Your task to perform on an android device: turn on sleep mode Image 0: 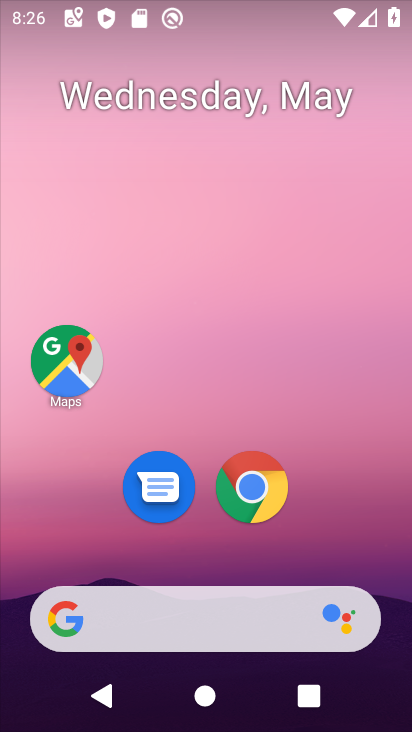
Step 0: press home button
Your task to perform on an android device: turn on sleep mode Image 1: 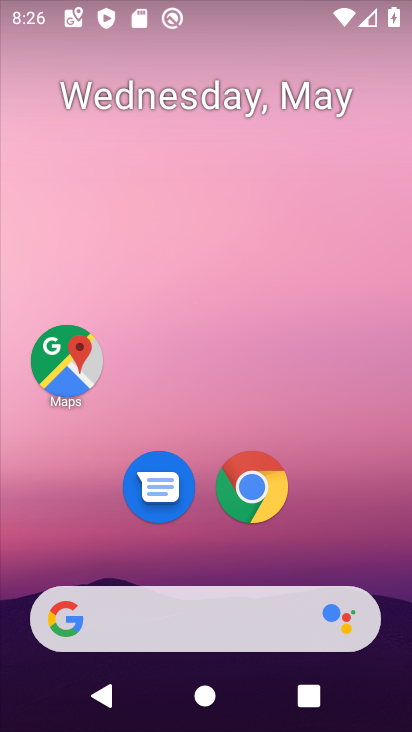
Step 1: drag from (213, 546) to (265, 188)
Your task to perform on an android device: turn on sleep mode Image 2: 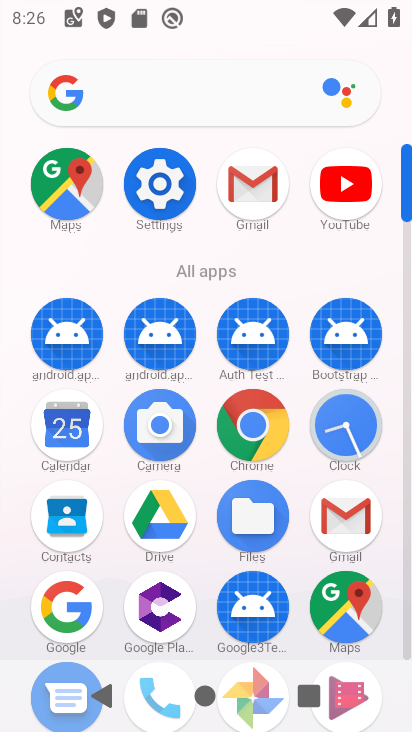
Step 2: click (159, 177)
Your task to perform on an android device: turn on sleep mode Image 3: 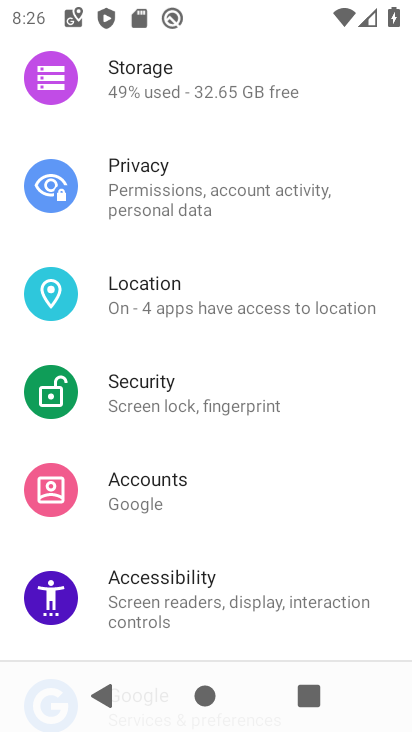
Step 3: drag from (189, 124) to (156, 731)
Your task to perform on an android device: turn on sleep mode Image 4: 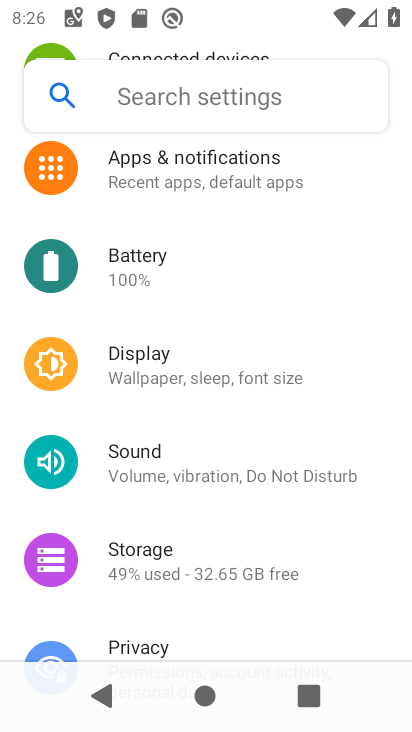
Step 4: click (174, 362)
Your task to perform on an android device: turn on sleep mode Image 5: 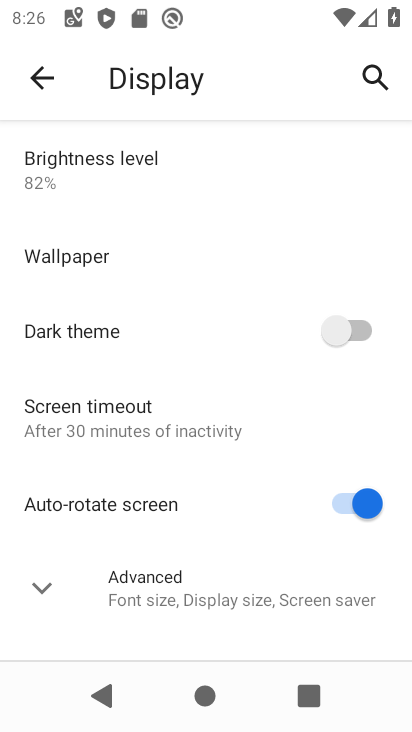
Step 5: click (35, 580)
Your task to perform on an android device: turn on sleep mode Image 6: 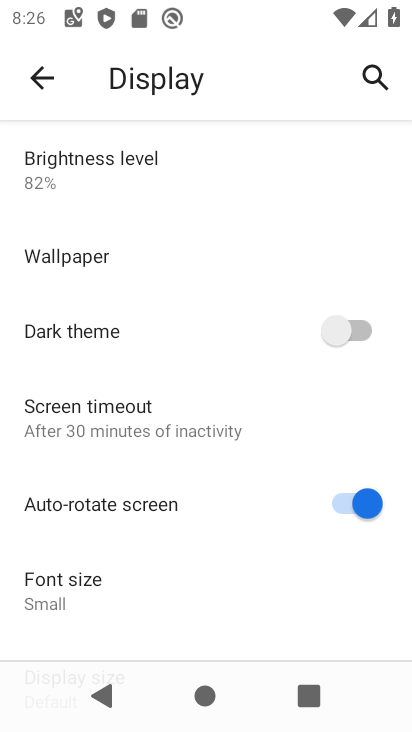
Step 6: task complete